Your task to perform on an android device: Turn off the flashlight Image 0: 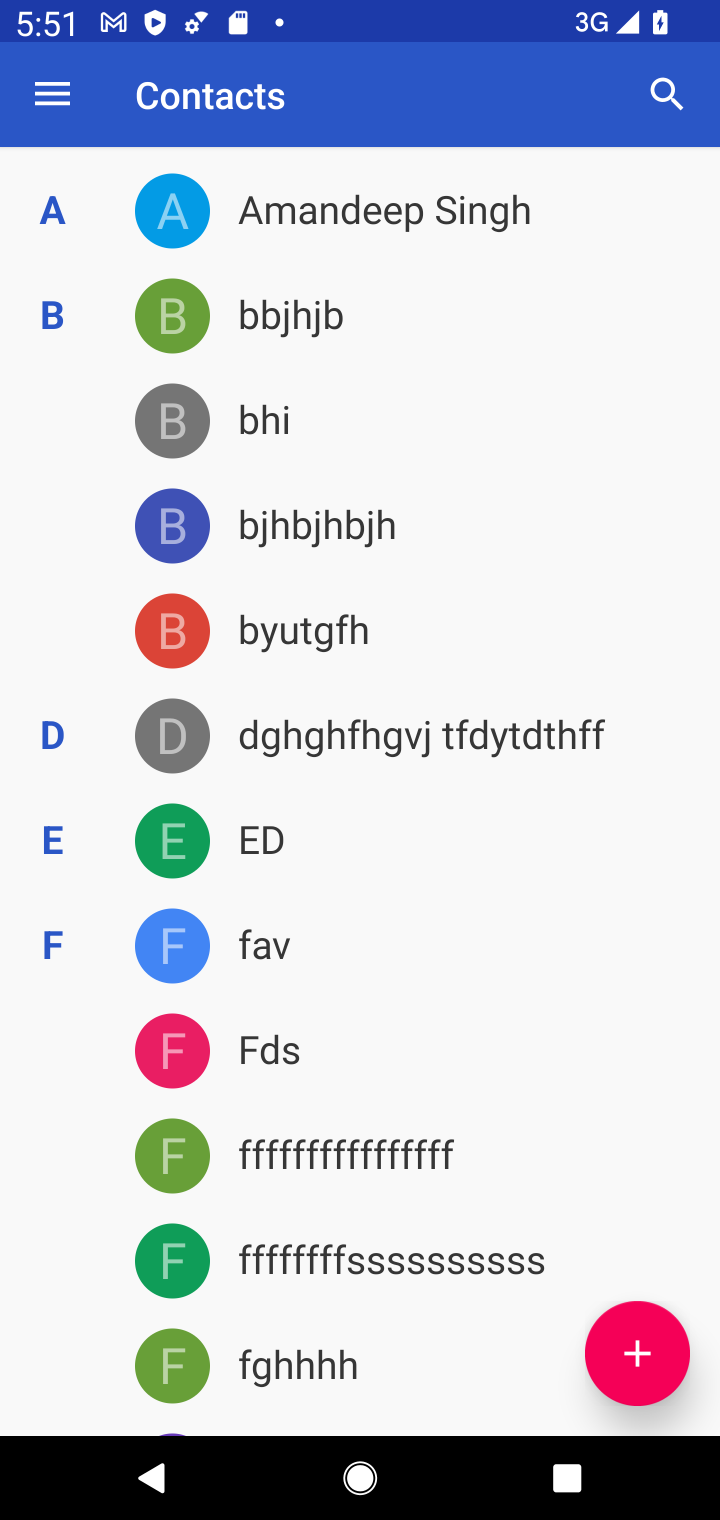
Step 0: press home button
Your task to perform on an android device: Turn off the flashlight Image 1: 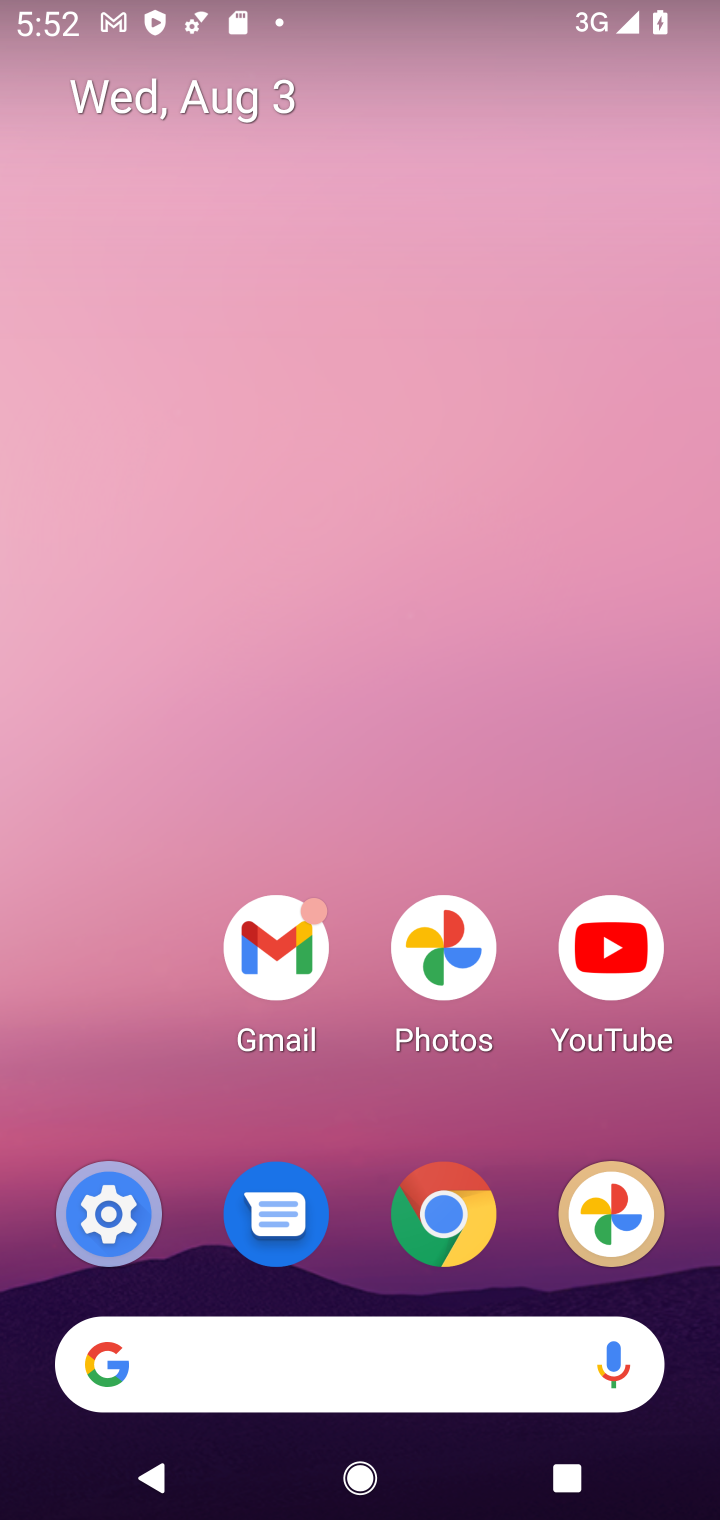
Step 1: click (108, 1222)
Your task to perform on an android device: Turn off the flashlight Image 2: 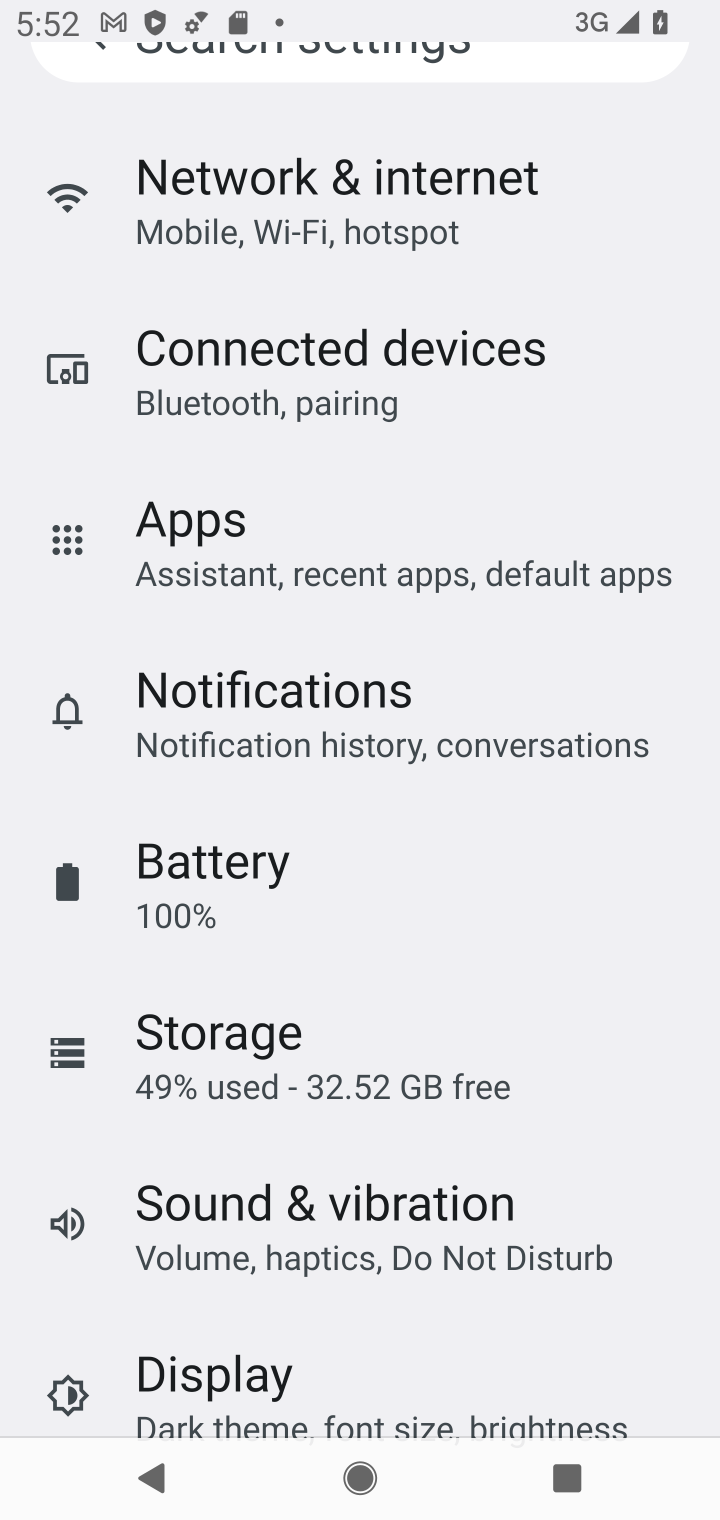
Step 2: task complete